Your task to perform on an android device: Go to eBay Image 0: 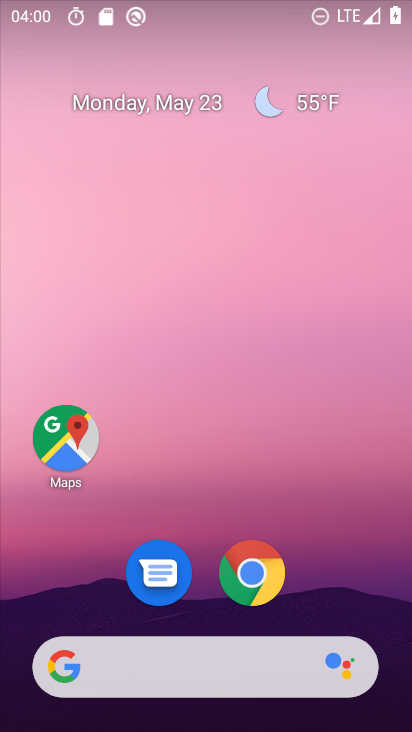
Step 0: click (245, 572)
Your task to perform on an android device: Go to eBay Image 1: 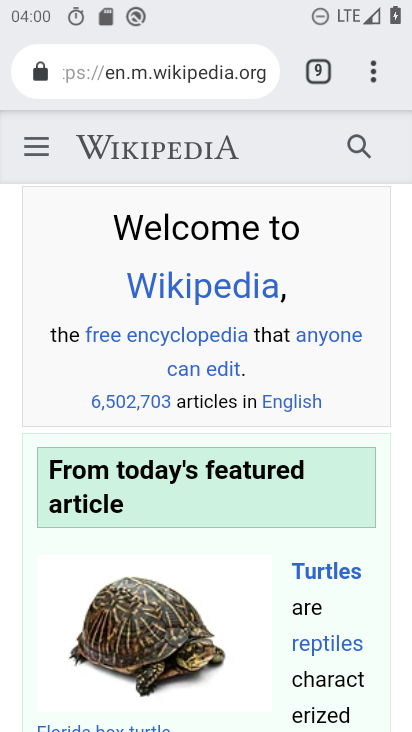
Step 1: click (320, 72)
Your task to perform on an android device: Go to eBay Image 2: 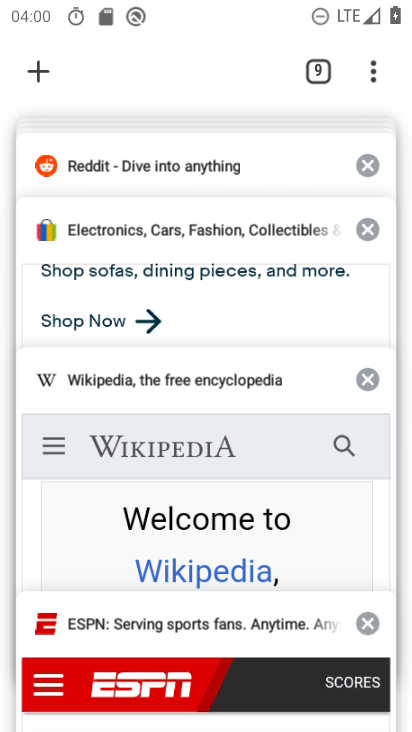
Step 2: drag from (204, 270) to (191, 559)
Your task to perform on an android device: Go to eBay Image 3: 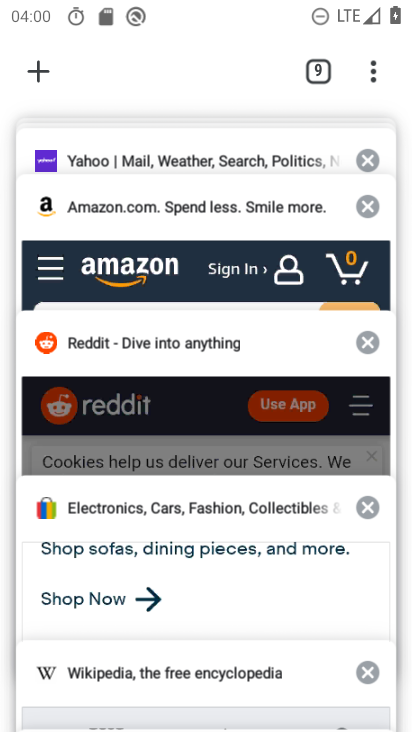
Step 3: drag from (181, 219) to (226, 620)
Your task to perform on an android device: Go to eBay Image 4: 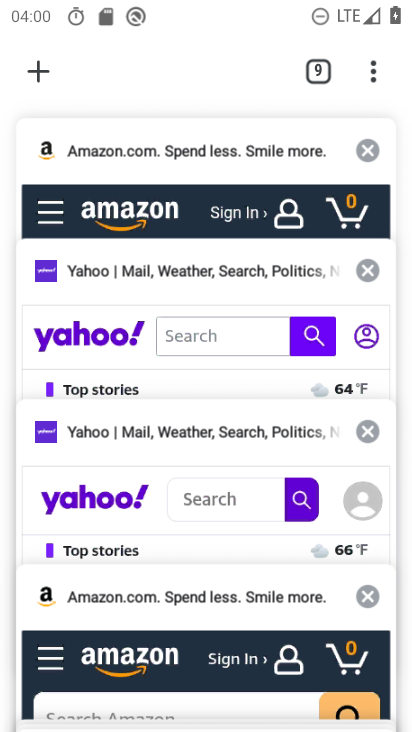
Step 4: click (43, 80)
Your task to perform on an android device: Go to eBay Image 5: 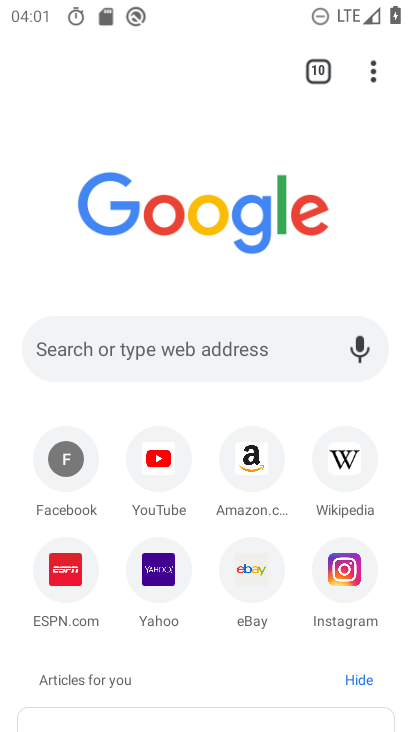
Step 5: click (258, 583)
Your task to perform on an android device: Go to eBay Image 6: 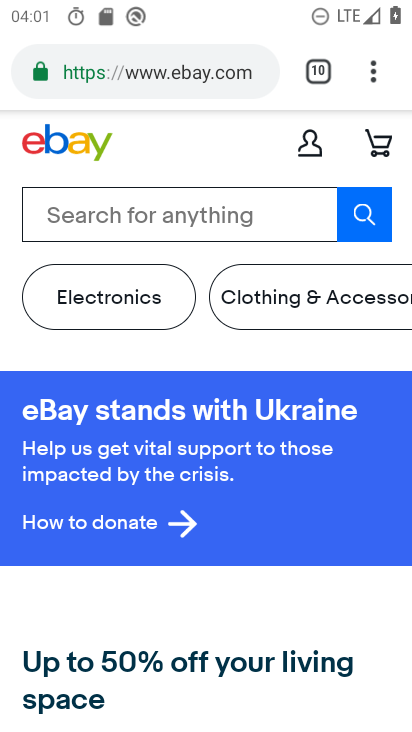
Step 6: task complete